Your task to perform on an android device: What's the weather? Image 0: 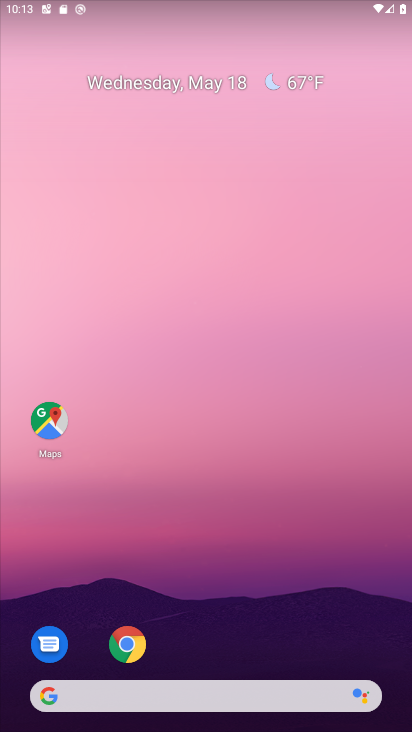
Step 0: drag from (258, 577) to (171, 128)
Your task to perform on an android device: What's the weather? Image 1: 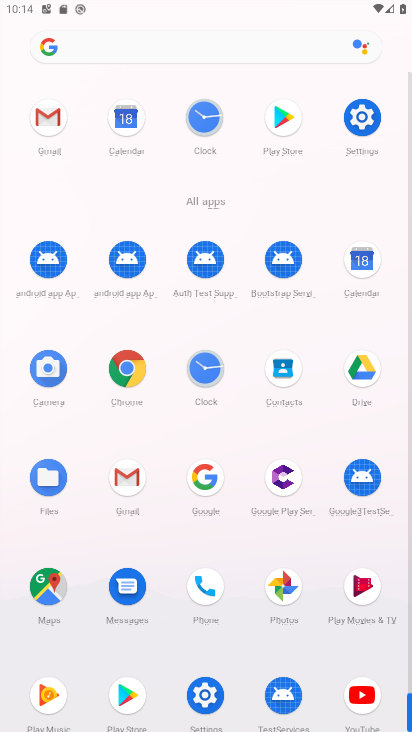
Step 1: click (201, 474)
Your task to perform on an android device: What's the weather? Image 2: 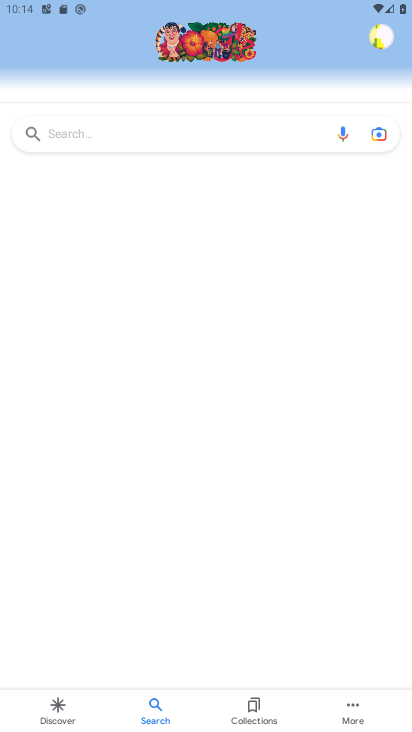
Step 2: click (176, 139)
Your task to perform on an android device: What's the weather? Image 3: 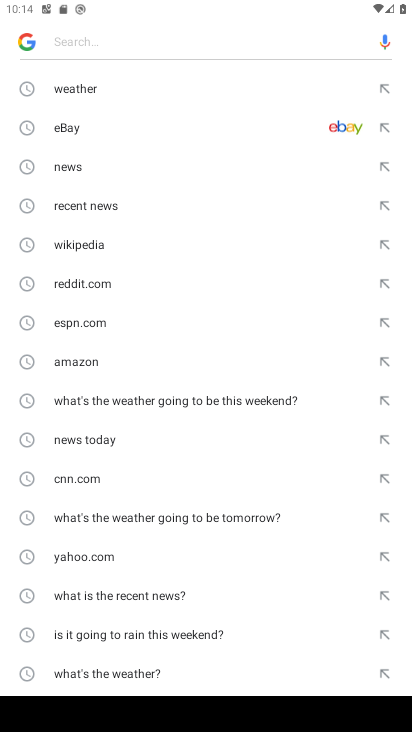
Step 3: type "weather"
Your task to perform on an android device: What's the weather? Image 4: 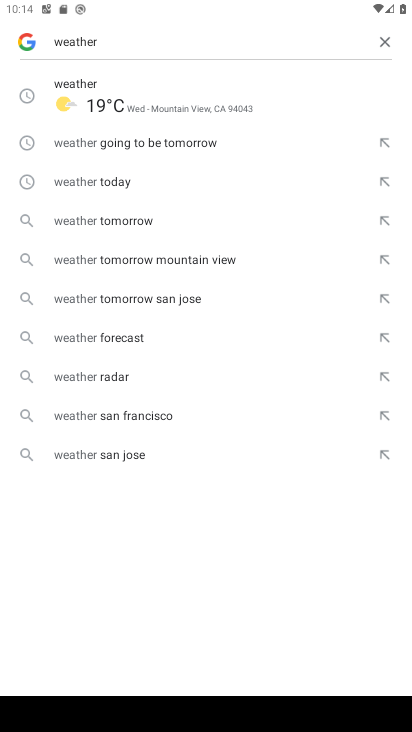
Step 4: click (131, 108)
Your task to perform on an android device: What's the weather? Image 5: 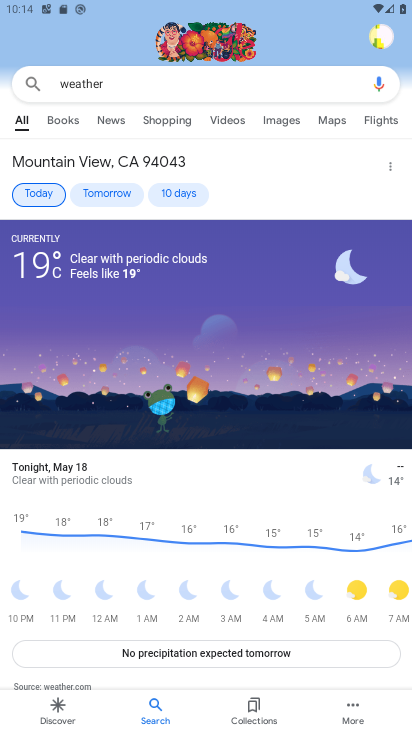
Step 5: task complete